Your task to perform on an android device: Search for "macbook pro" on bestbuy.com, select the first entry, add it to the cart, then select checkout. Image 0: 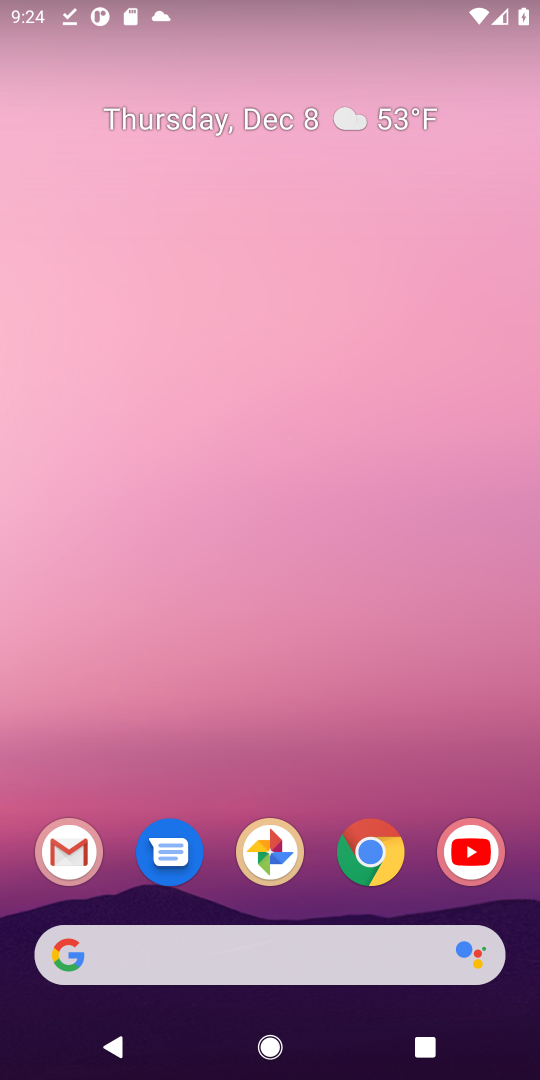
Step 0: click (240, 947)
Your task to perform on an android device: Search for "macbook pro" on bestbuy.com, select the first entry, add it to the cart, then select checkout. Image 1: 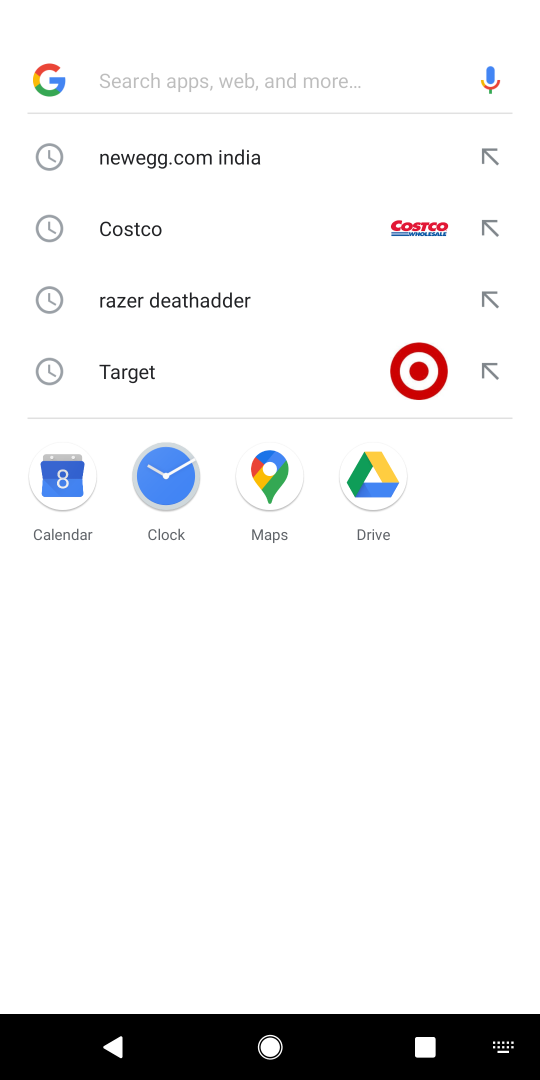
Step 1: type "bestbuy.com"
Your task to perform on an android device: Search for "macbook pro" on bestbuy.com, select the first entry, add it to the cart, then select checkout. Image 2: 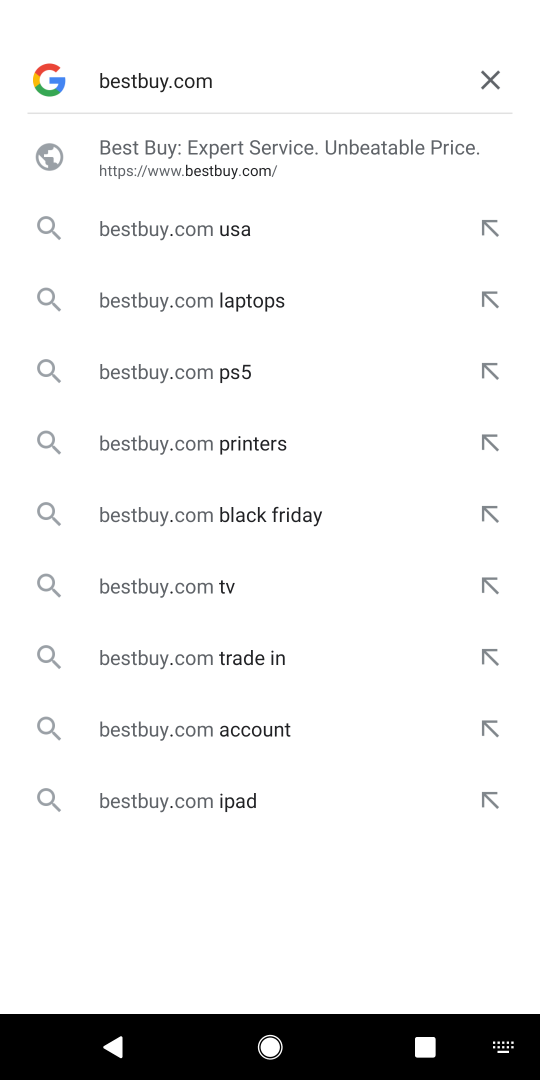
Step 2: click (170, 160)
Your task to perform on an android device: Search for "macbook pro" on bestbuy.com, select the first entry, add it to the cart, then select checkout. Image 3: 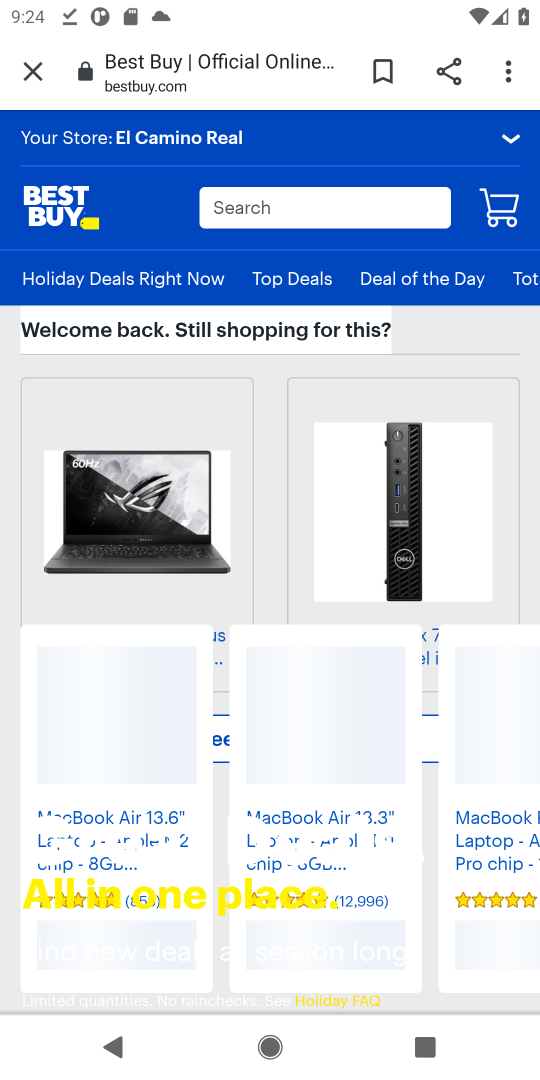
Step 3: click (243, 200)
Your task to perform on an android device: Search for "macbook pro" on bestbuy.com, select the first entry, add it to the cart, then select checkout. Image 4: 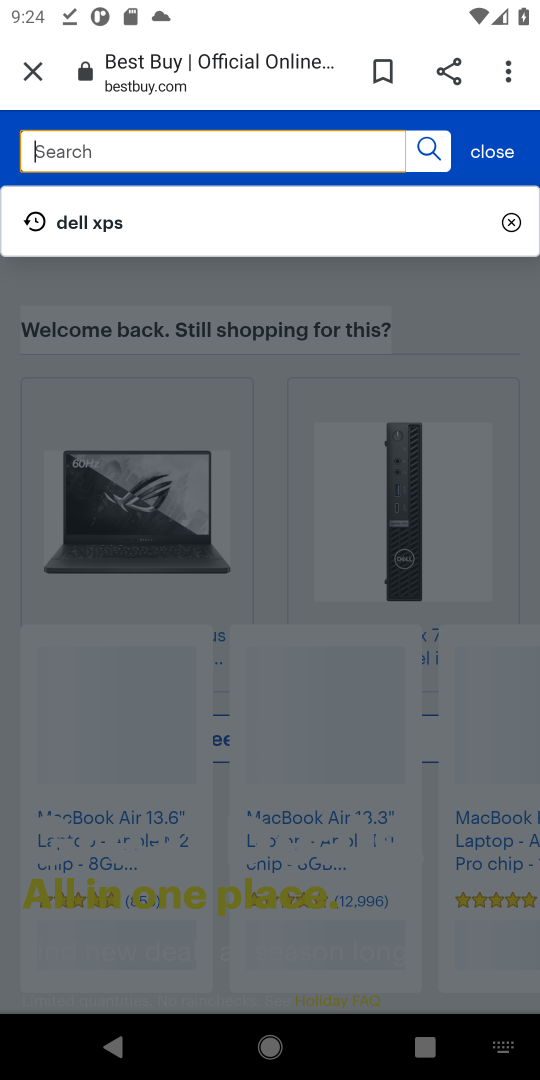
Step 4: type "macbook pro"
Your task to perform on an android device: Search for "macbook pro" on bestbuy.com, select the first entry, add it to the cart, then select checkout. Image 5: 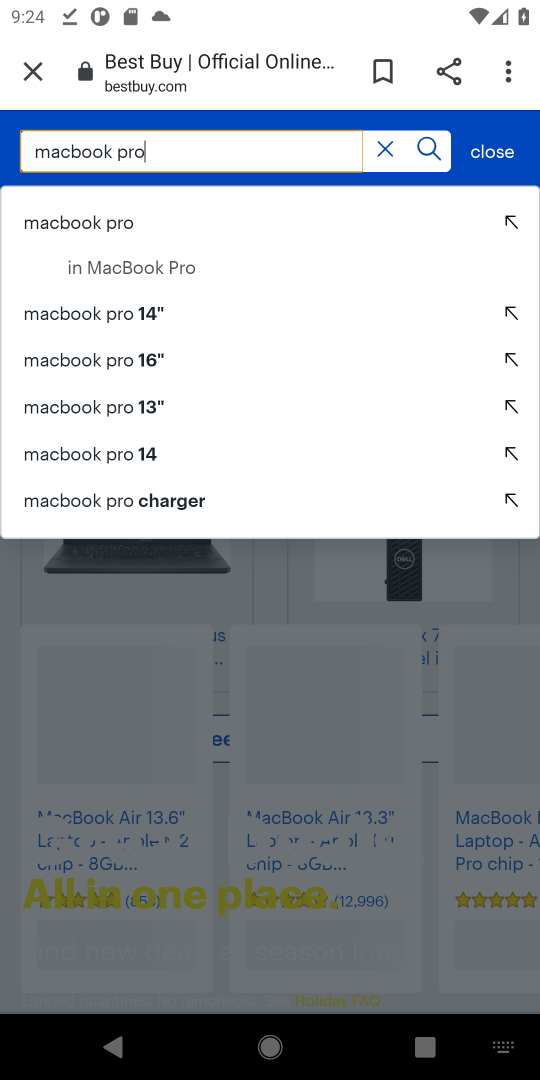
Step 5: click (108, 230)
Your task to perform on an android device: Search for "macbook pro" on bestbuy.com, select the first entry, add it to the cart, then select checkout. Image 6: 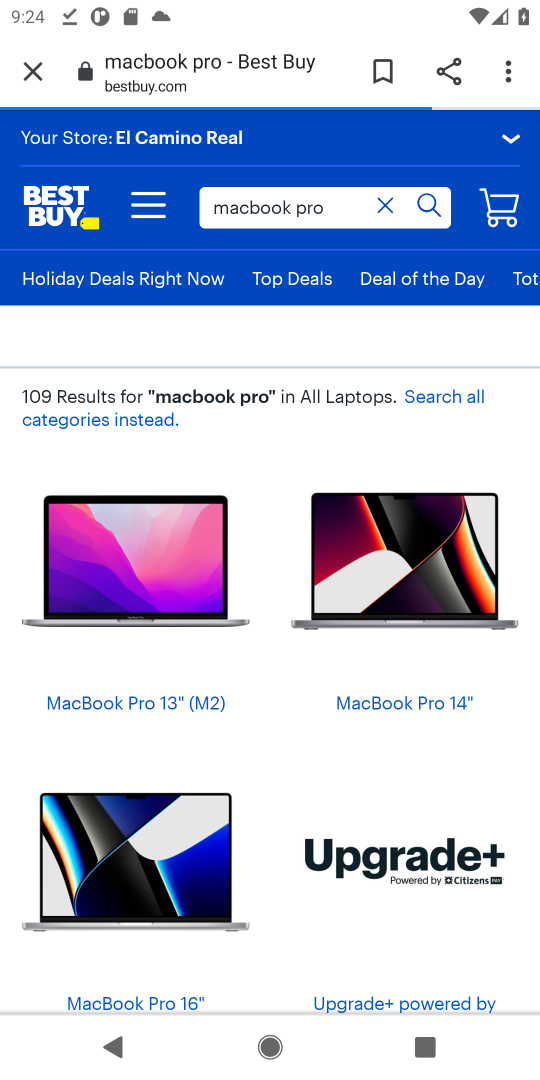
Step 6: click (176, 640)
Your task to perform on an android device: Search for "macbook pro" on bestbuy.com, select the first entry, add it to the cart, then select checkout. Image 7: 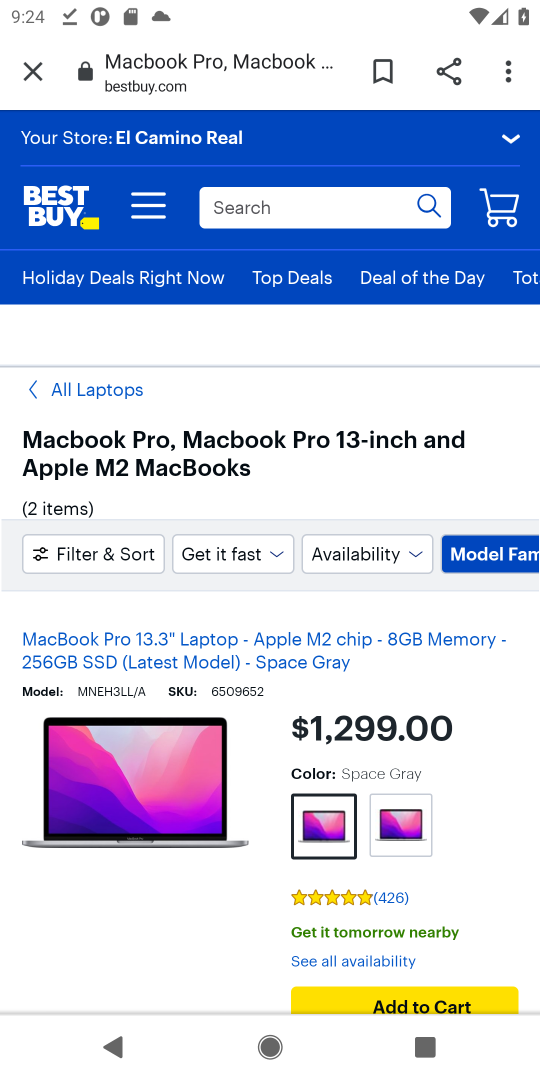
Step 7: drag from (240, 937) to (211, 589)
Your task to perform on an android device: Search for "macbook pro" on bestbuy.com, select the first entry, add it to the cart, then select checkout. Image 8: 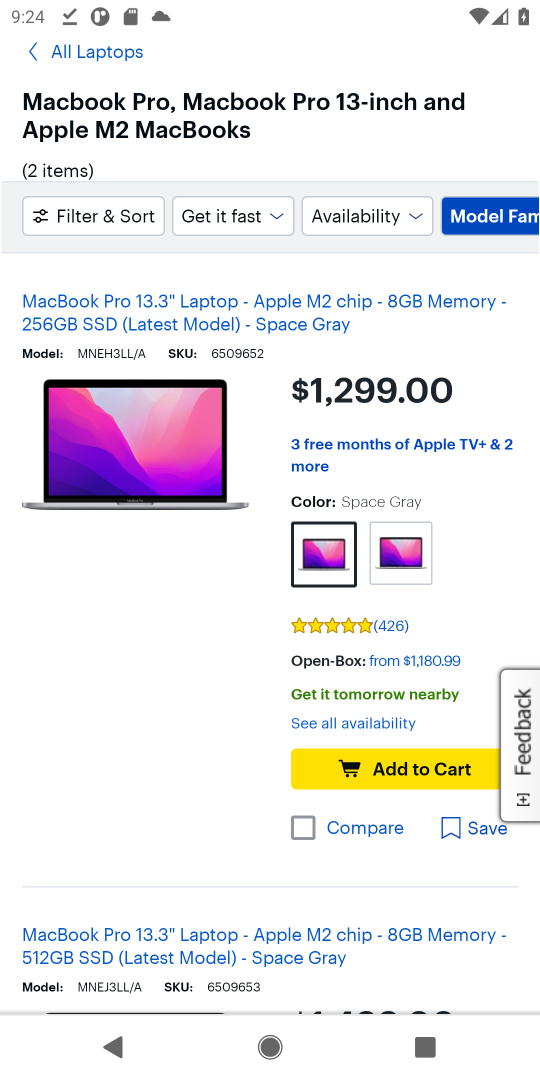
Step 8: click (392, 785)
Your task to perform on an android device: Search for "macbook pro" on bestbuy.com, select the first entry, add it to the cart, then select checkout. Image 9: 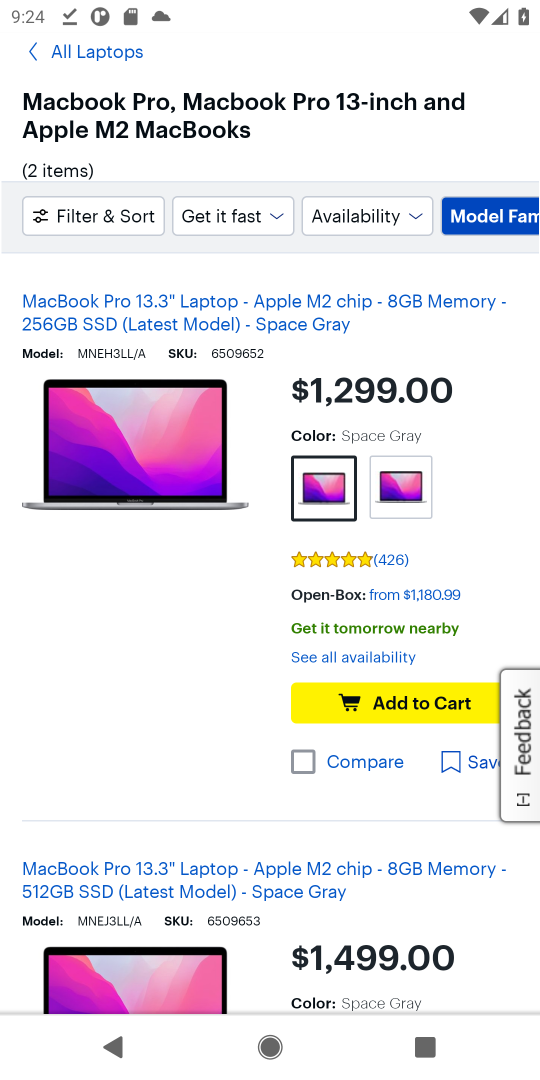
Step 9: task complete